Your task to perform on an android device: Open Google Maps and go to "Timeline" Image 0: 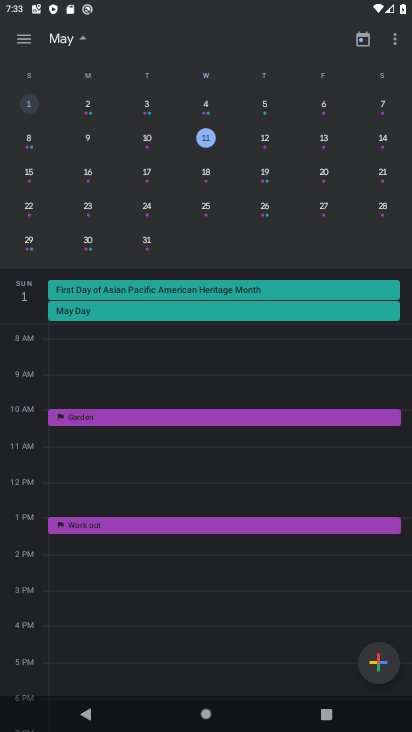
Step 0: press home button
Your task to perform on an android device: Open Google Maps and go to "Timeline" Image 1: 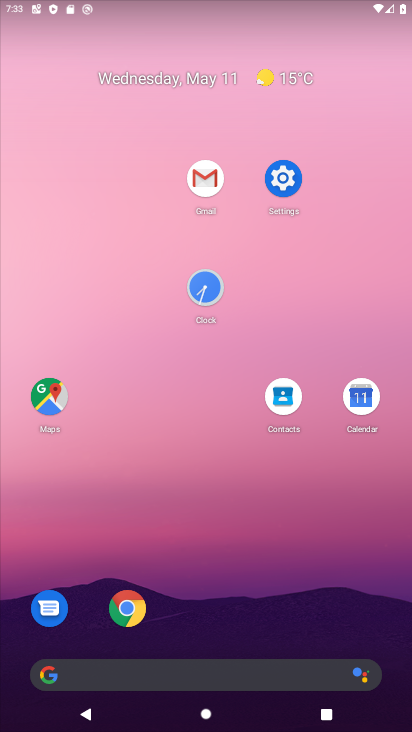
Step 1: click (52, 391)
Your task to perform on an android device: Open Google Maps and go to "Timeline" Image 2: 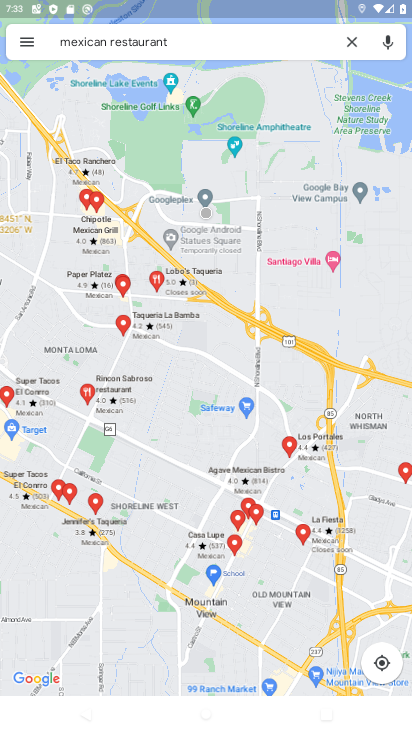
Step 2: click (25, 46)
Your task to perform on an android device: Open Google Maps and go to "Timeline" Image 3: 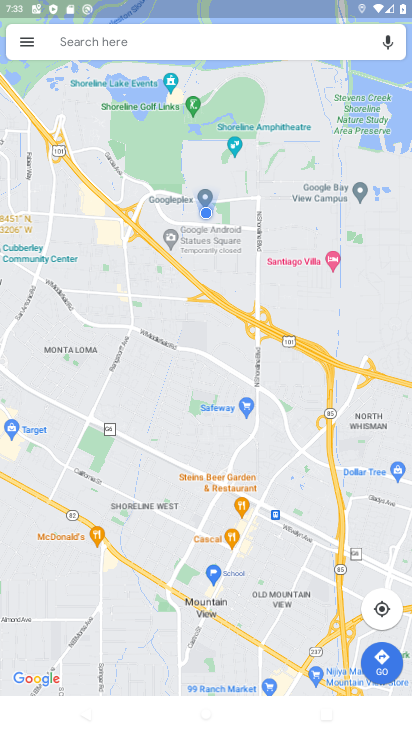
Step 3: click (27, 44)
Your task to perform on an android device: Open Google Maps and go to "Timeline" Image 4: 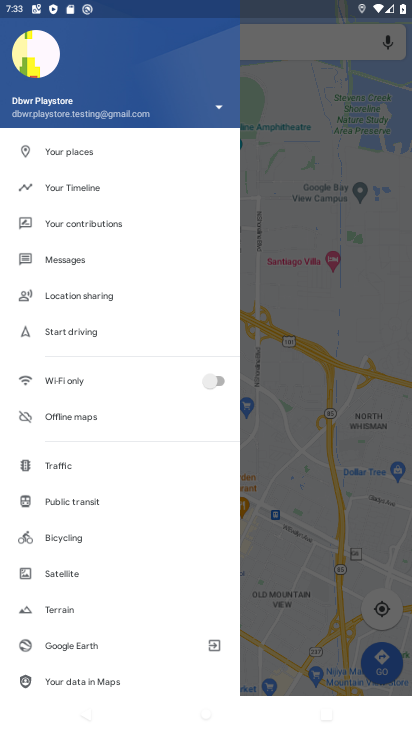
Step 4: click (103, 190)
Your task to perform on an android device: Open Google Maps and go to "Timeline" Image 5: 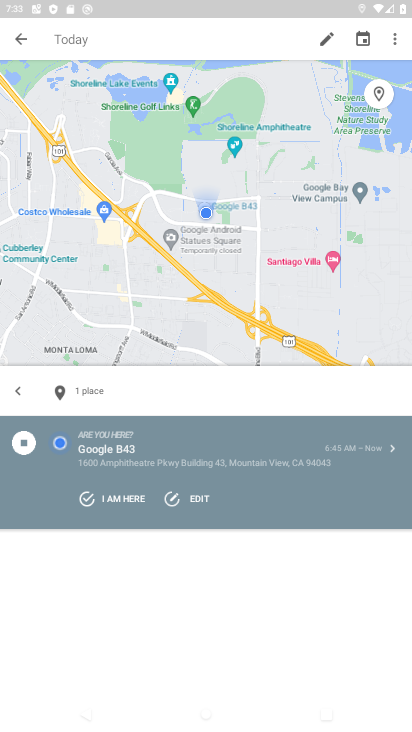
Step 5: task complete